Your task to perform on an android device: Go to notification settings Image 0: 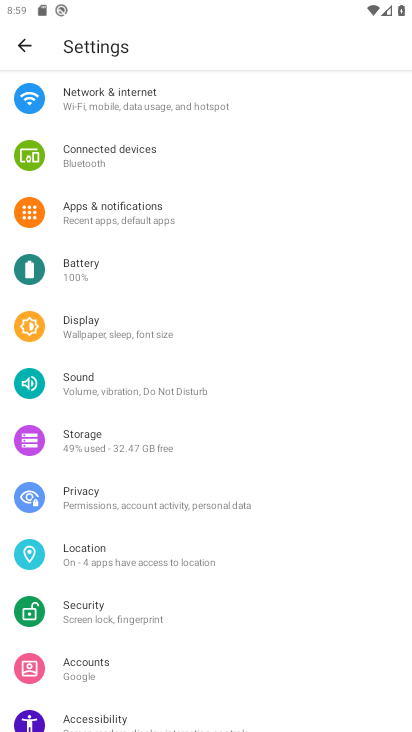
Step 0: click (186, 222)
Your task to perform on an android device: Go to notification settings Image 1: 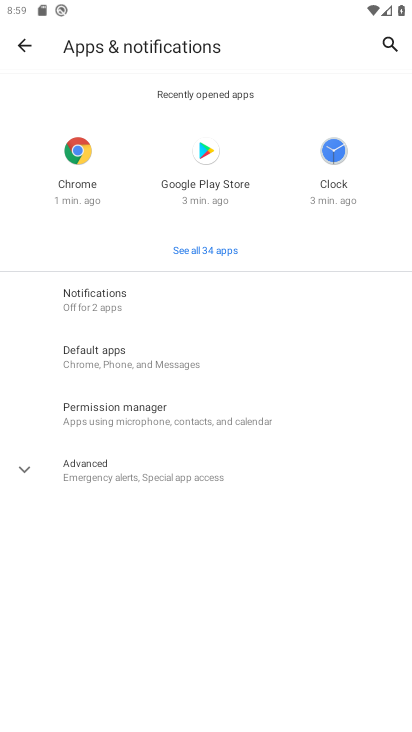
Step 1: task complete